Your task to perform on an android device: check data usage Image 0: 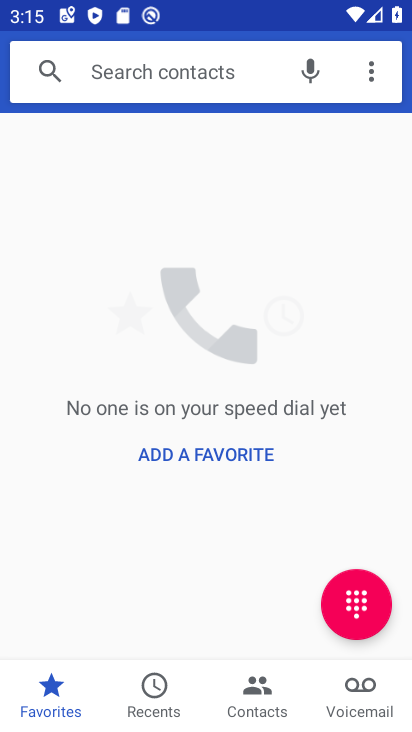
Step 0: press home button
Your task to perform on an android device: check data usage Image 1: 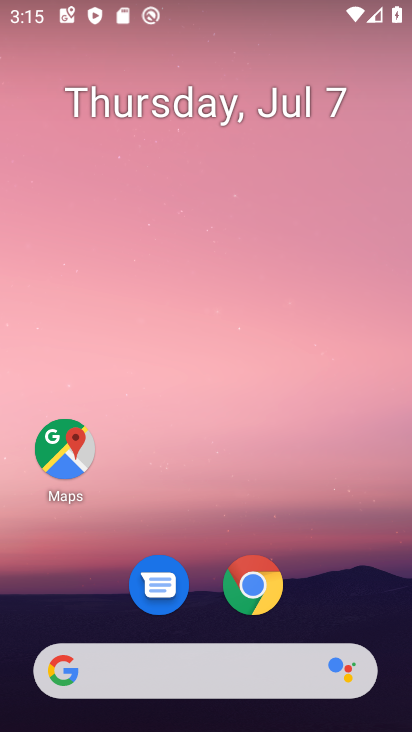
Step 1: drag from (236, 465) to (234, 5)
Your task to perform on an android device: check data usage Image 2: 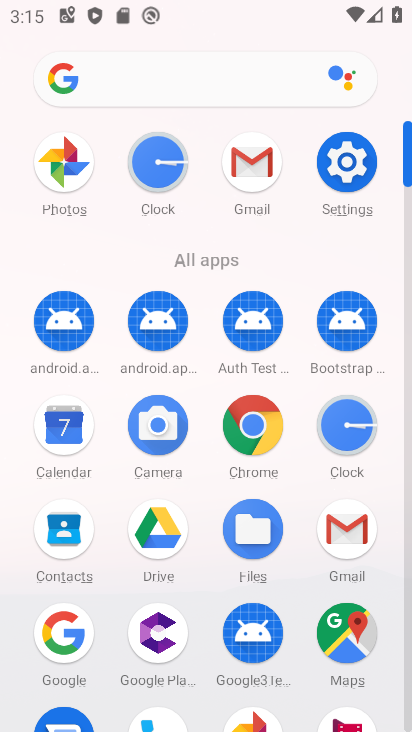
Step 2: click (344, 153)
Your task to perform on an android device: check data usage Image 3: 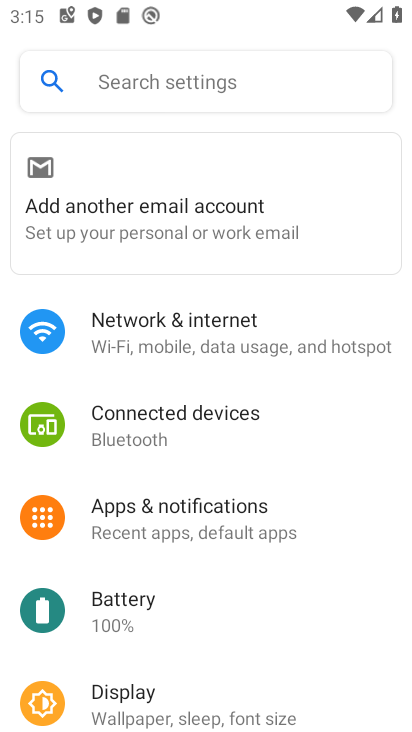
Step 3: click (221, 330)
Your task to perform on an android device: check data usage Image 4: 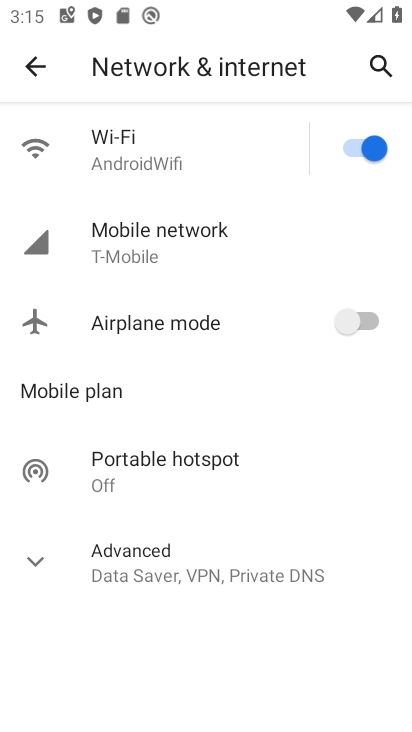
Step 4: click (183, 241)
Your task to perform on an android device: check data usage Image 5: 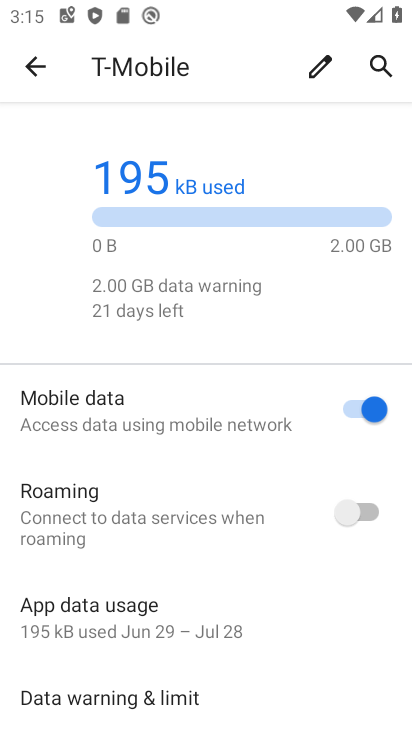
Step 5: task complete